Your task to perform on an android device: Open settings on Google Maps Image 0: 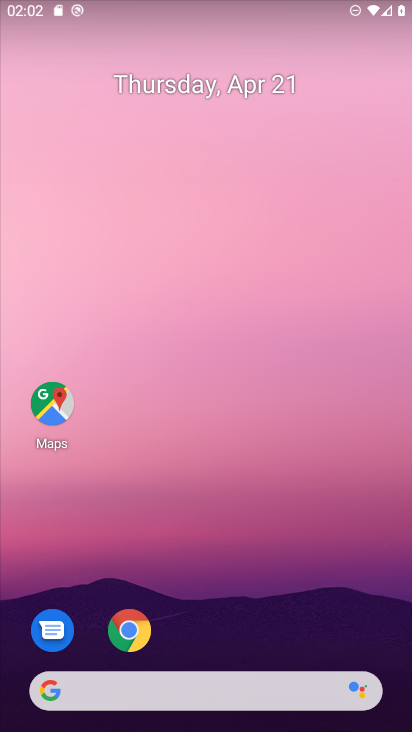
Step 0: click (64, 432)
Your task to perform on an android device: Open settings on Google Maps Image 1: 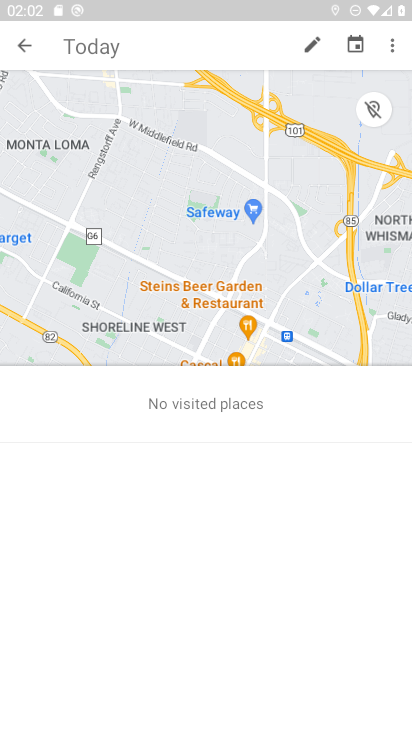
Step 1: press back button
Your task to perform on an android device: Open settings on Google Maps Image 2: 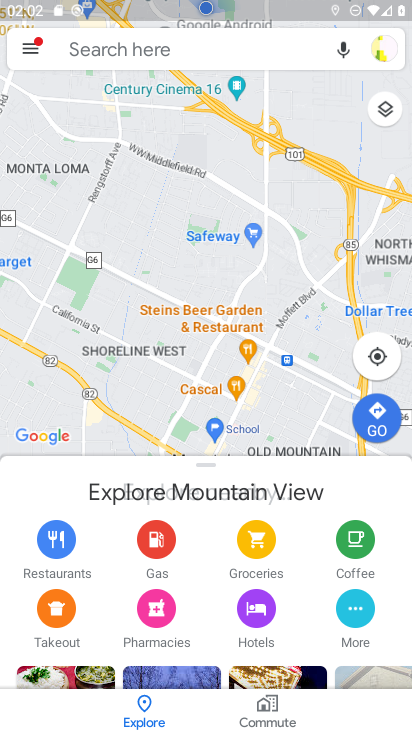
Step 2: click (33, 48)
Your task to perform on an android device: Open settings on Google Maps Image 3: 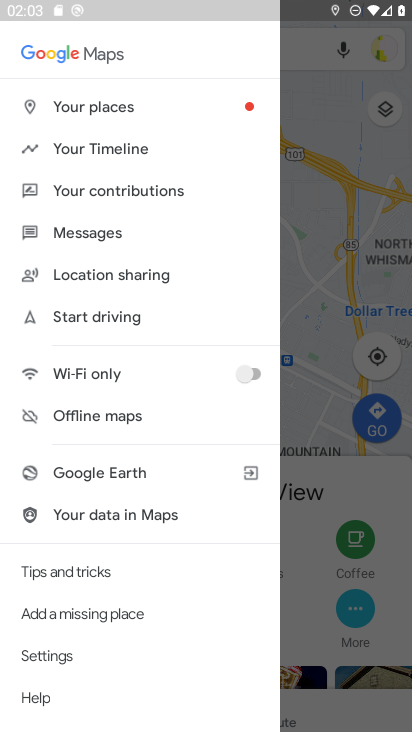
Step 3: click (82, 652)
Your task to perform on an android device: Open settings on Google Maps Image 4: 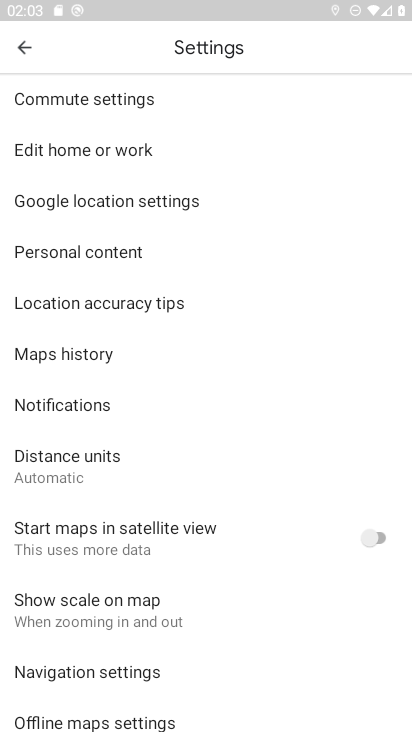
Step 4: task complete